Your task to perform on an android device: Open Android settings Image 0: 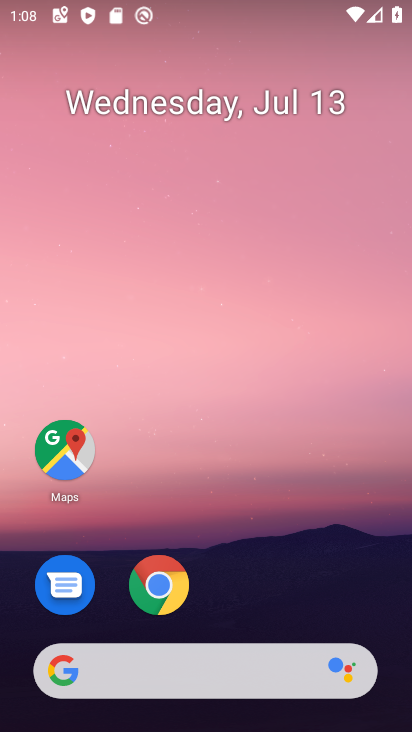
Step 0: drag from (184, 569) to (353, 15)
Your task to perform on an android device: Open Android settings Image 1: 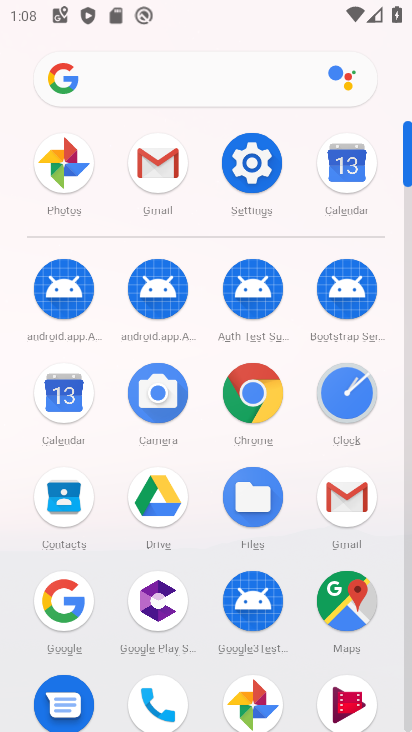
Step 1: click (260, 166)
Your task to perform on an android device: Open Android settings Image 2: 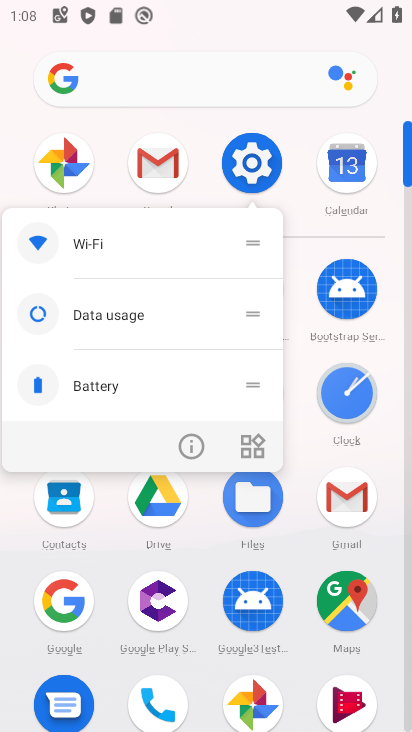
Step 2: click (253, 169)
Your task to perform on an android device: Open Android settings Image 3: 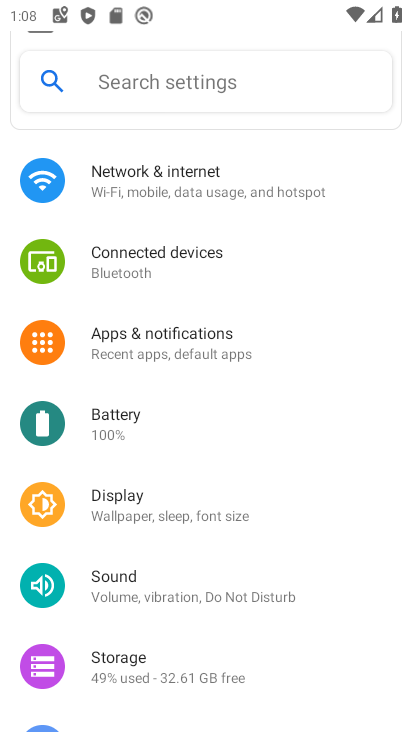
Step 3: task complete